Your task to perform on an android device: Empty the shopping cart on amazon. Image 0: 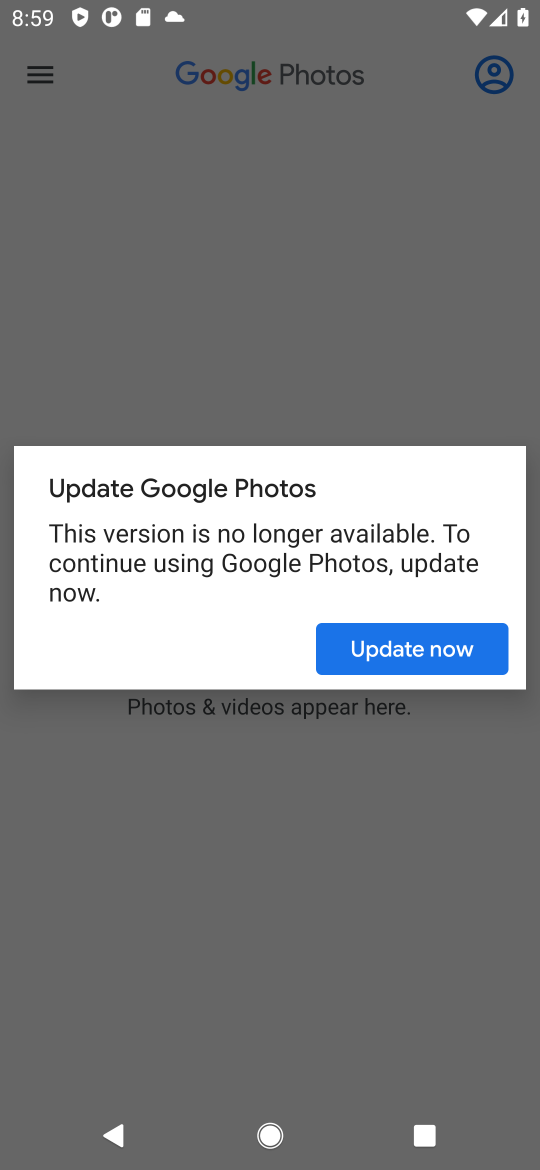
Step 0: press home button
Your task to perform on an android device: Empty the shopping cart on amazon. Image 1: 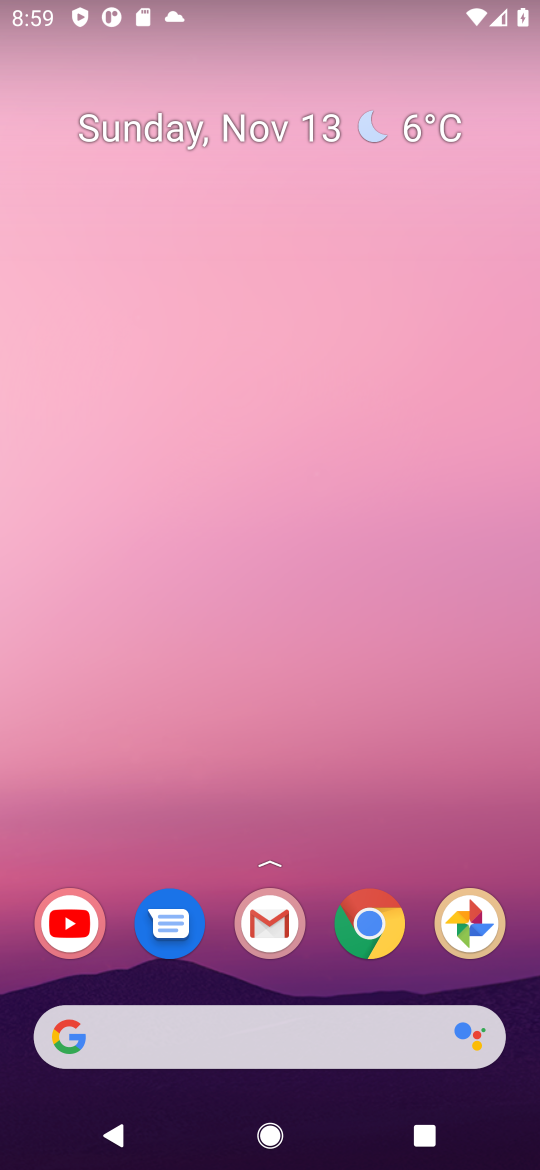
Step 1: click (350, 912)
Your task to perform on an android device: Empty the shopping cart on amazon. Image 2: 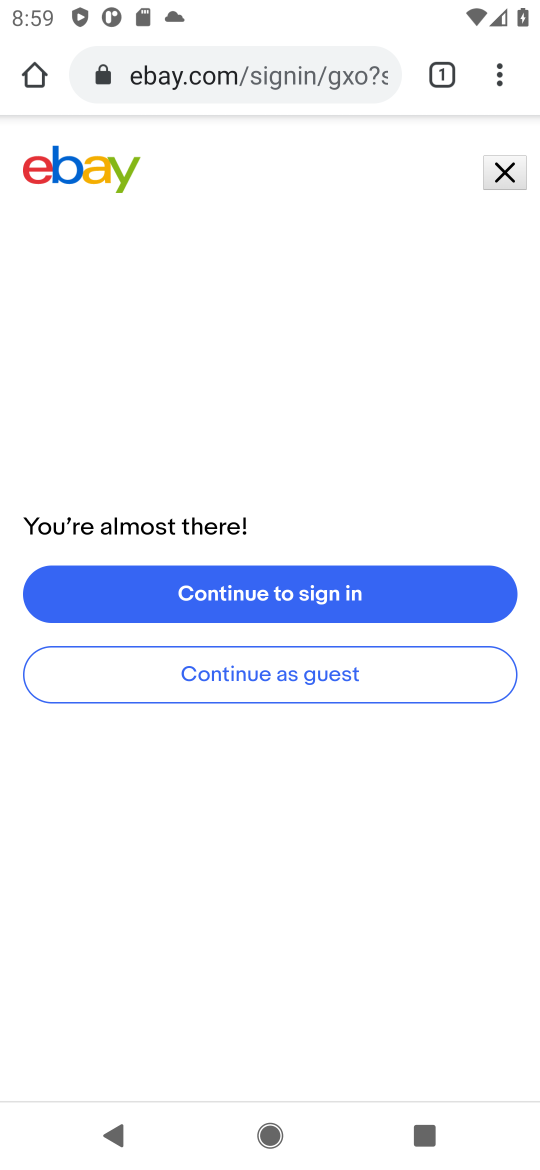
Step 2: click (319, 71)
Your task to perform on an android device: Empty the shopping cart on amazon. Image 3: 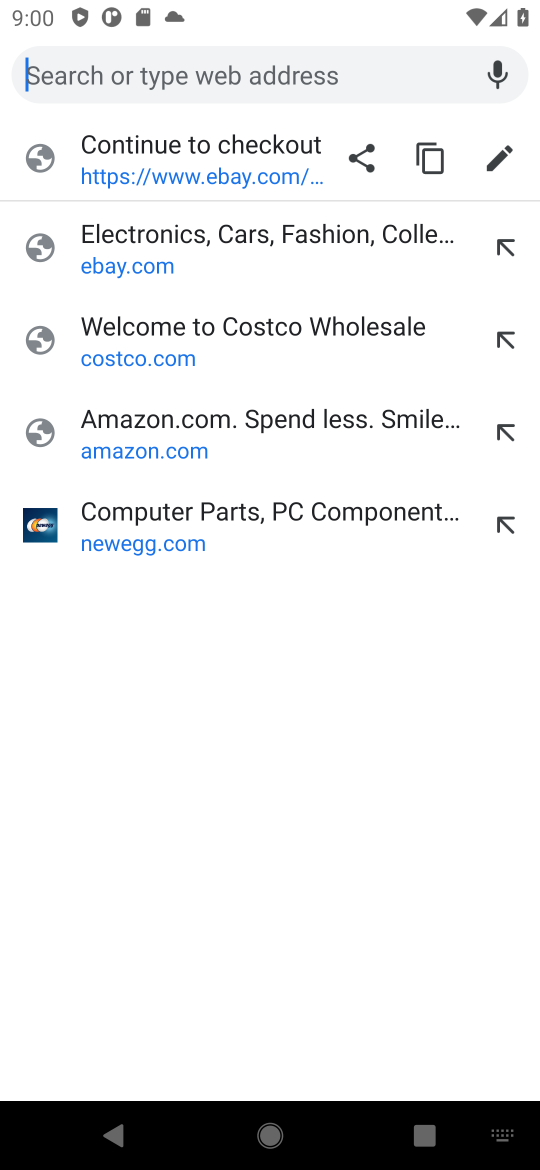
Step 3: type "amazon"
Your task to perform on an android device: Empty the shopping cart on amazon. Image 4: 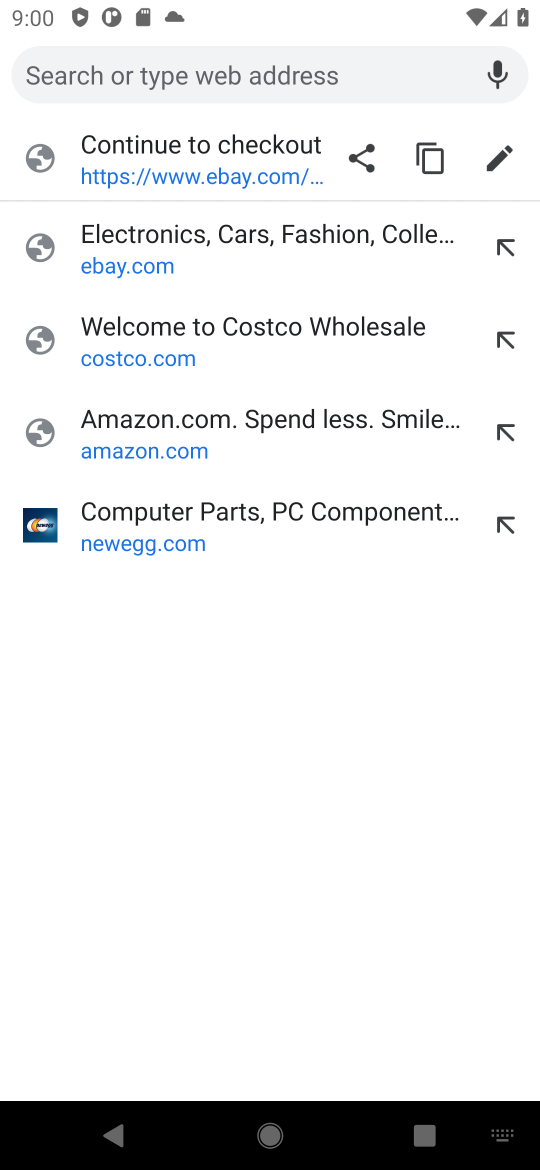
Step 4: click (283, 430)
Your task to perform on an android device: Empty the shopping cart on amazon. Image 5: 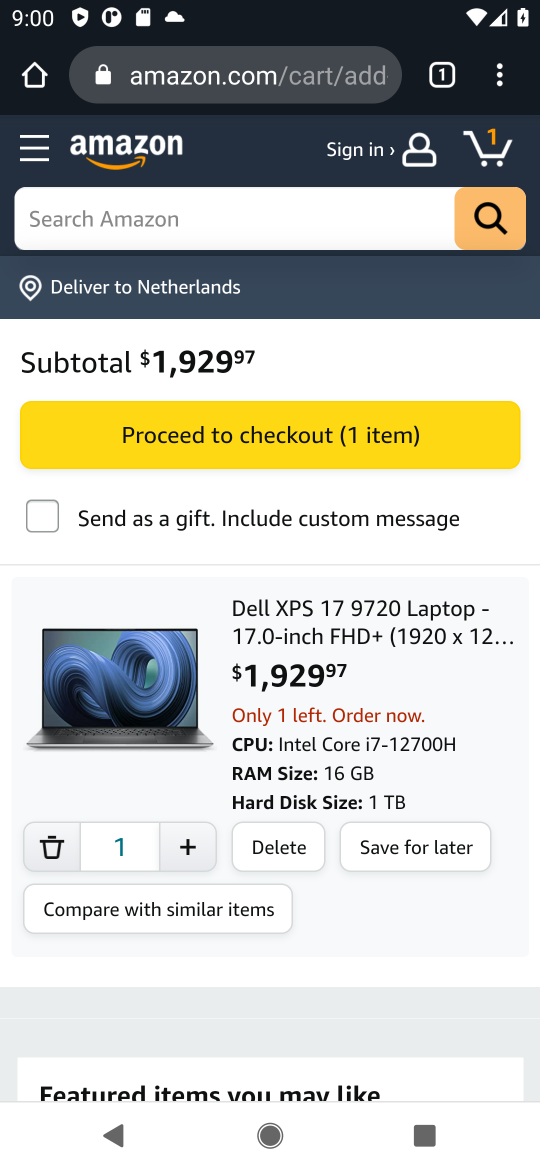
Step 5: click (486, 140)
Your task to perform on an android device: Empty the shopping cart on amazon. Image 6: 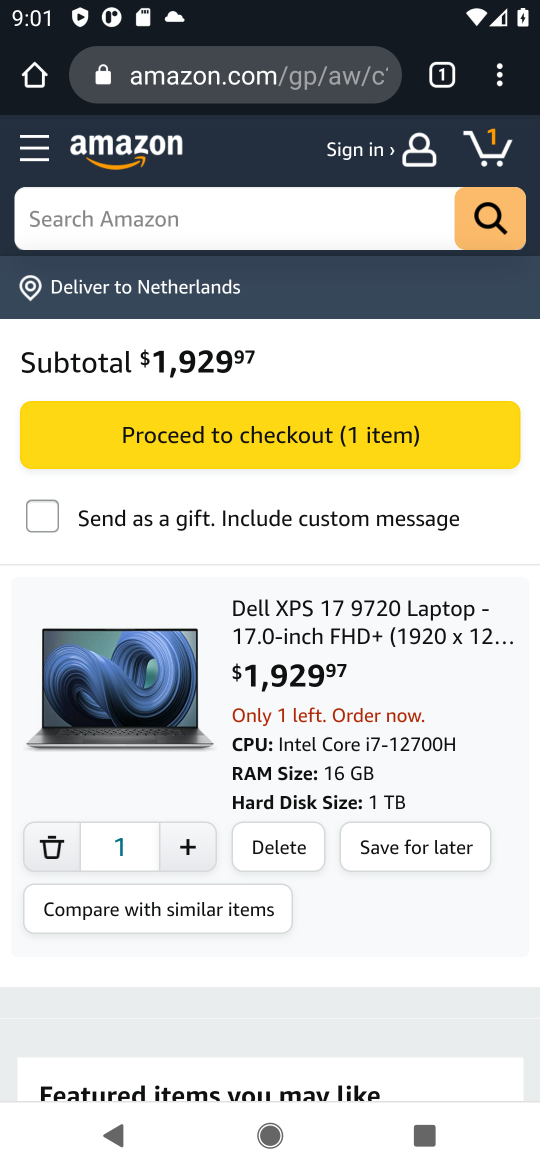
Step 6: click (272, 839)
Your task to perform on an android device: Empty the shopping cart on amazon. Image 7: 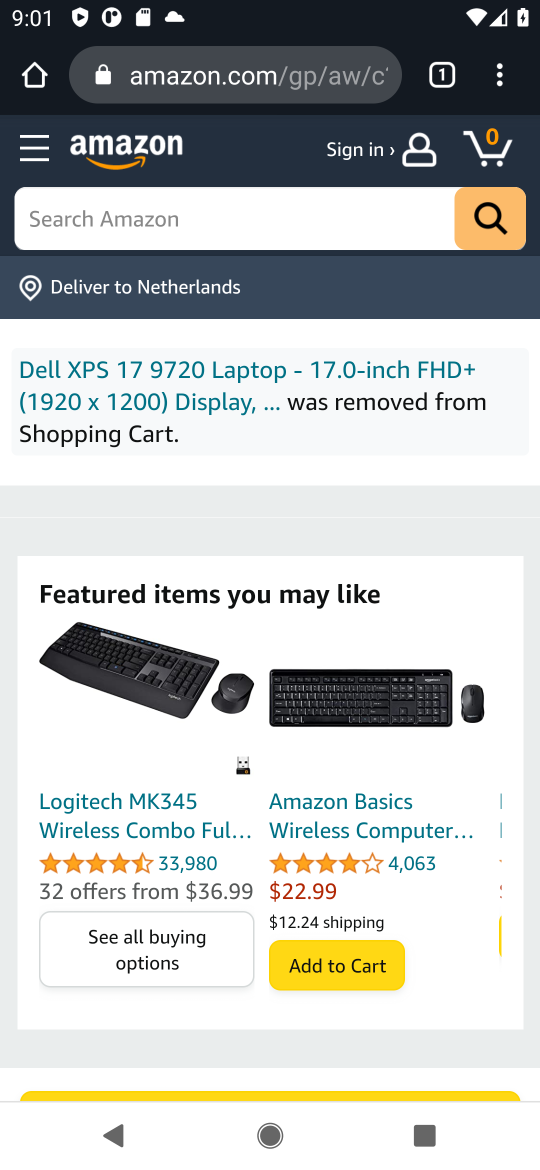
Step 7: task complete